Your task to perform on an android device: Open CNN.com Image 0: 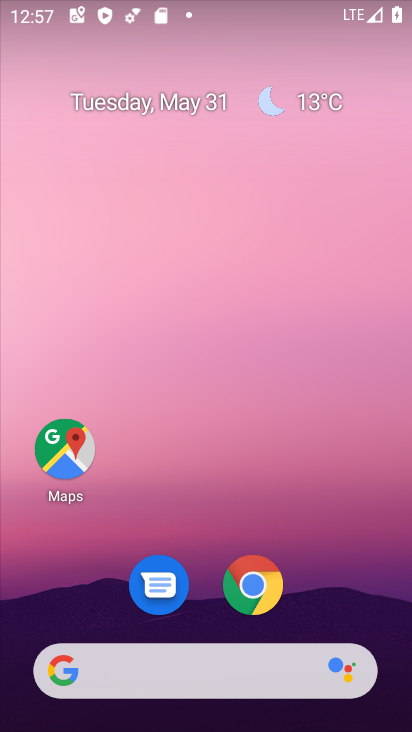
Step 0: click (254, 679)
Your task to perform on an android device: Open CNN.com Image 1: 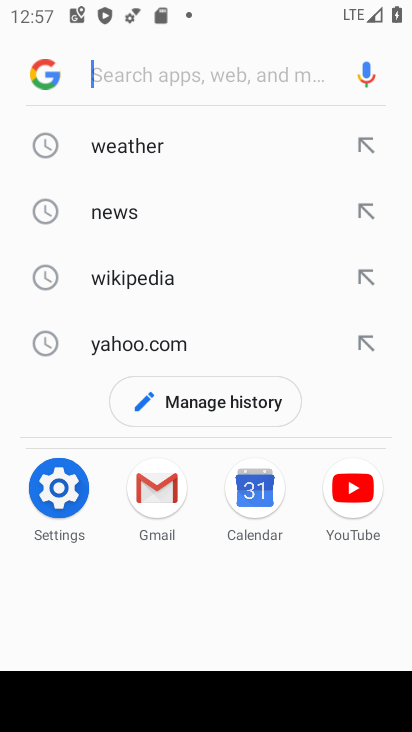
Step 1: type "cnn.com"
Your task to perform on an android device: Open CNN.com Image 2: 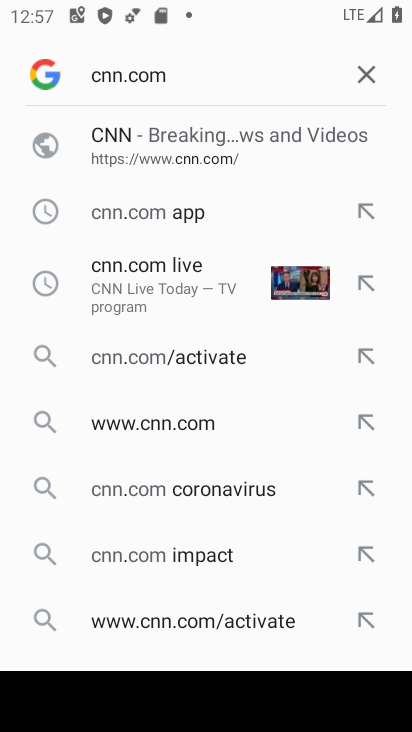
Step 2: click (130, 122)
Your task to perform on an android device: Open CNN.com Image 3: 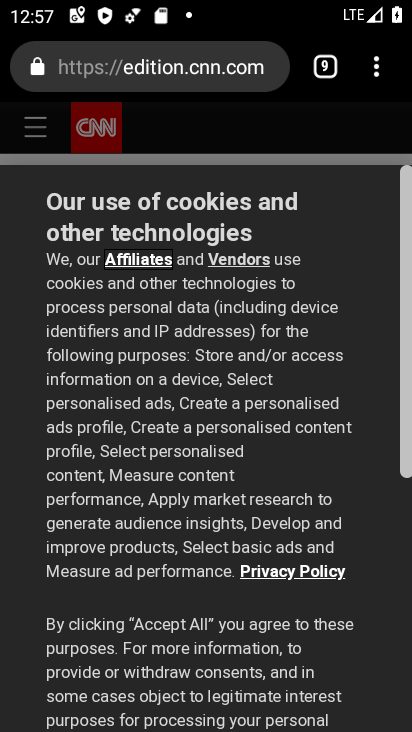
Step 3: task complete